Your task to perform on an android device: Search for pizza restaurants on Maps Image 0: 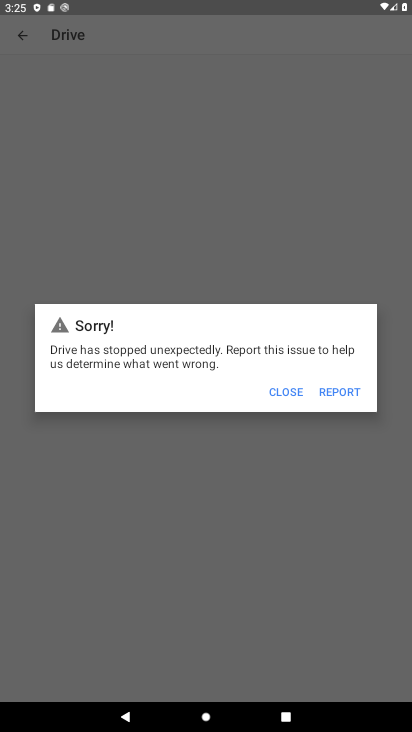
Step 0: press home button
Your task to perform on an android device: Search for pizza restaurants on Maps Image 1: 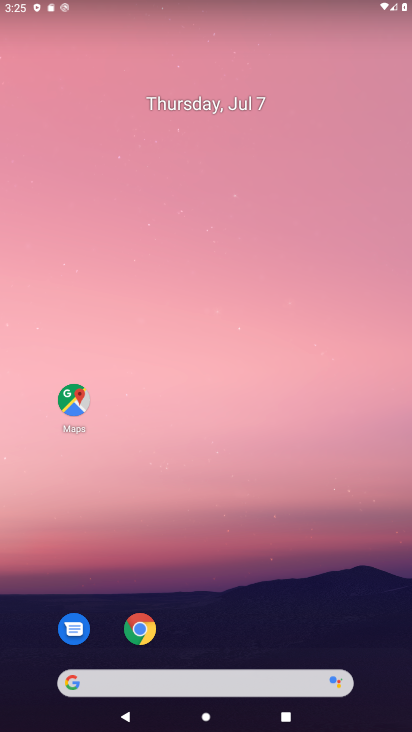
Step 1: click (79, 395)
Your task to perform on an android device: Search for pizza restaurants on Maps Image 2: 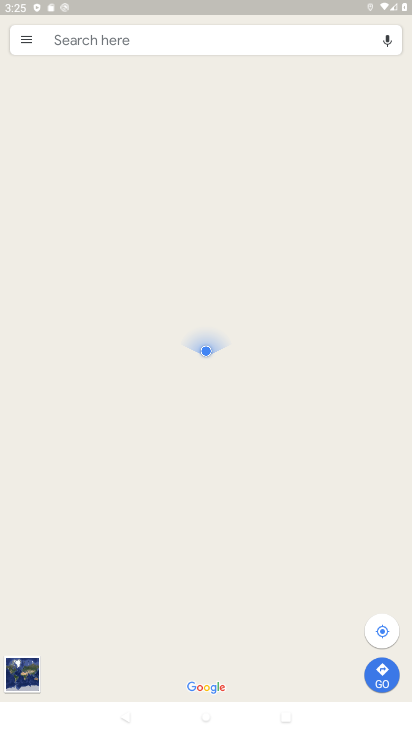
Step 2: click (106, 33)
Your task to perform on an android device: Search for pizza restaurants on Maps Image 3: 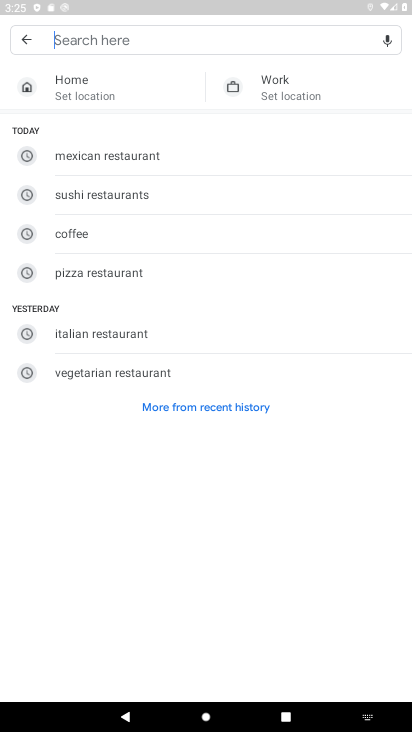
Step 3: type " pizza restaurants"
Your task to perform on an android device: Search for pizza restaurants on Maps Image 4: 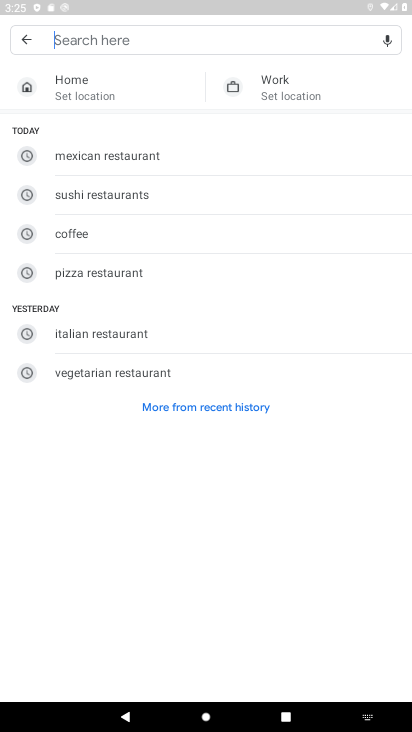
Step 4: click (73, 38)
Your task to perform on an android device: Search for pizza restaurants on Maps Image 5: 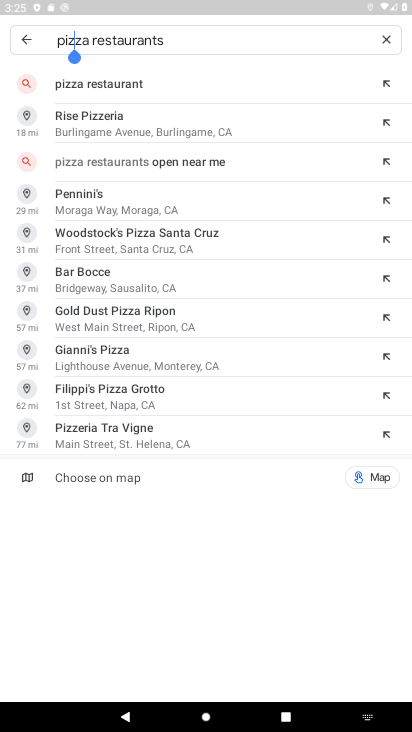
Step 5: click (97, 85)
Your task to perform on an android device: Search for pizza restaurants on Maps Image 6: 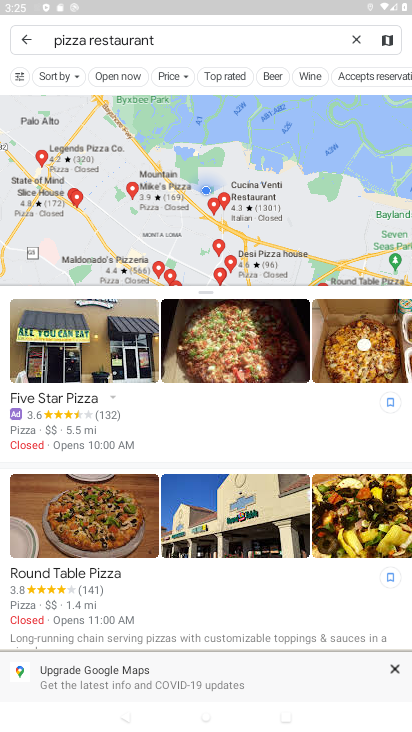
Step 6: task complete